Your task to perform on an android device: toggle improve location accuracy Image 0: 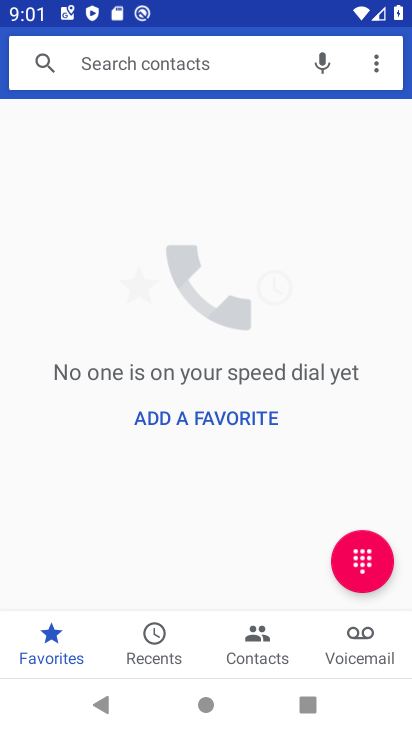
Step 0: press home button
Your task to perform on an android device: toggle improve location accuracy Image 1: 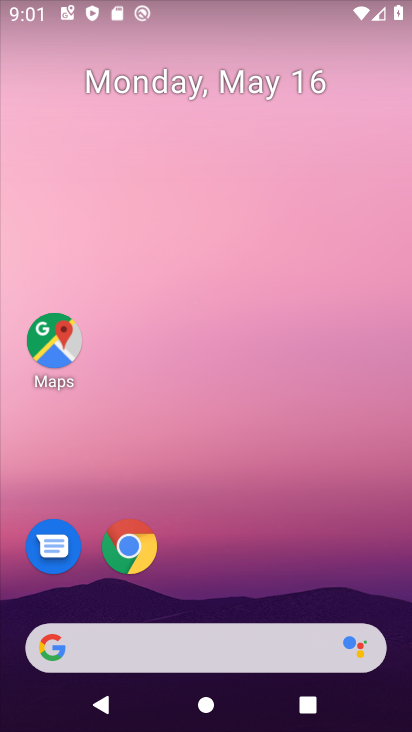
Step 1: drag from (223, 671) to (273, 238)
Your task to perform on an android device: toggle improve location accuracy Image 2: 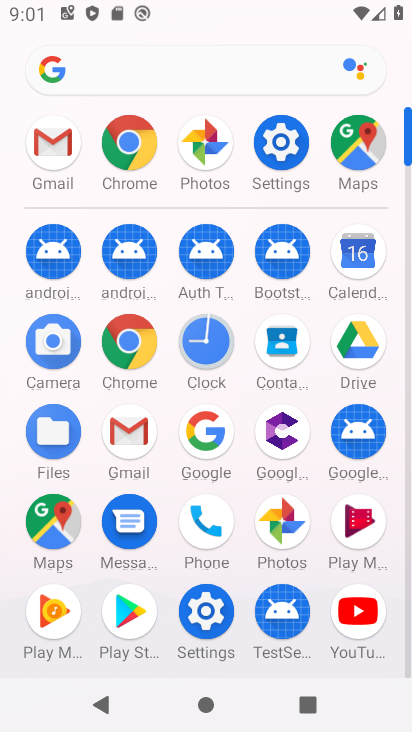
Step 2: click (203, 611)
Your task to perform on an android device: toggle improve location accuracy Image 3: 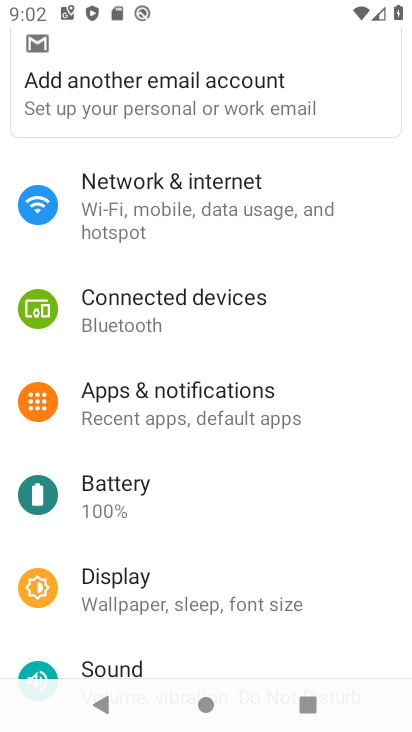
Step 3: drag from (272, 197) to (234, 480)
Your task to perform on an android device: toggle improve location accuracy Image 4: 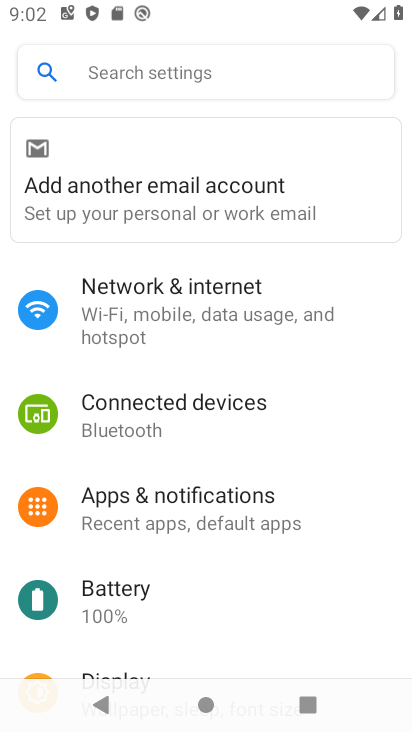
Step 4: click (169, 81)
Your task to perform on an android device: toggle improve location accuracy Image 5: 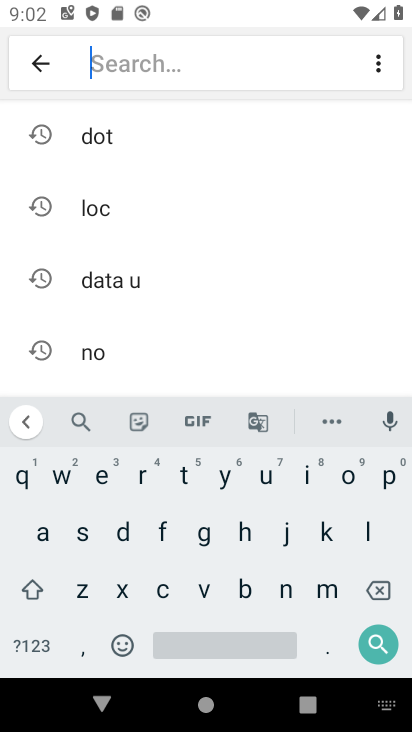
Step 5: click (119, 214)
Your task to perform on an android device: toggle improve location accuracy Image 6: 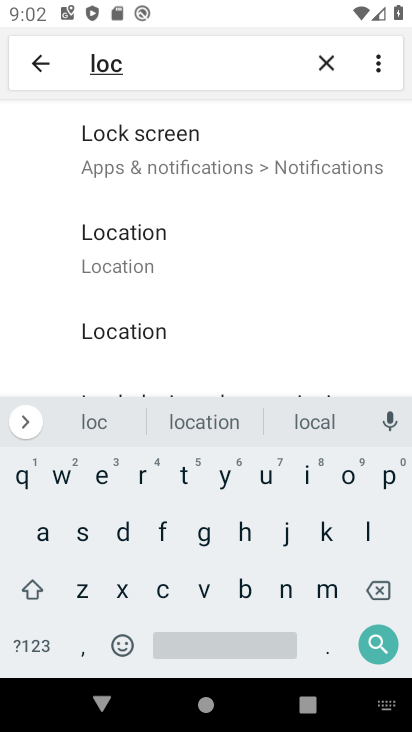
Step 6: click (138, 247)
Your task to perform on an android device: toggle improve location accuracy Image 7: 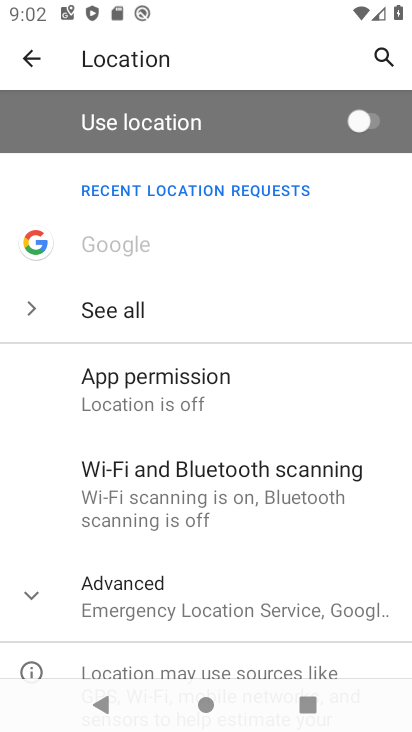
Step 7: drag from (128, 548) to (191, 277)
Your task to perform on an android device: toggle improve location accuracy Image 8: 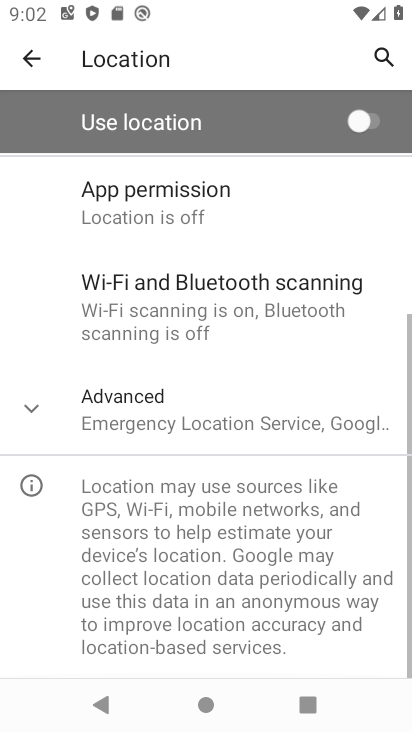
Step 8: click (145, 404)
Your task to perform on an android device: toggle improve location accuracy Image 9: 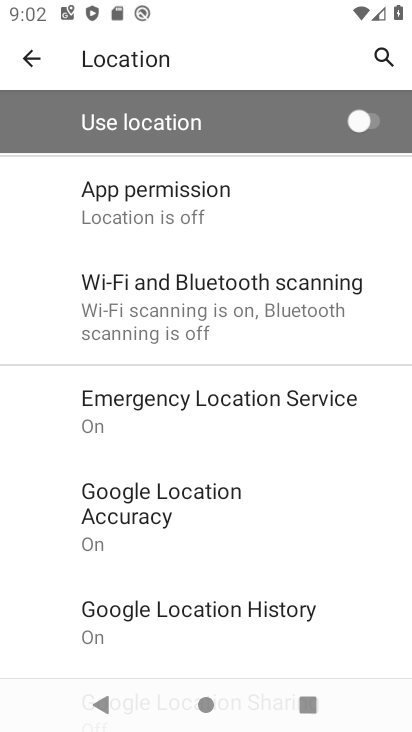
Step 9: click (193, 498)
Your task to perform on an android device: toggle improve location accuracy Image 10: 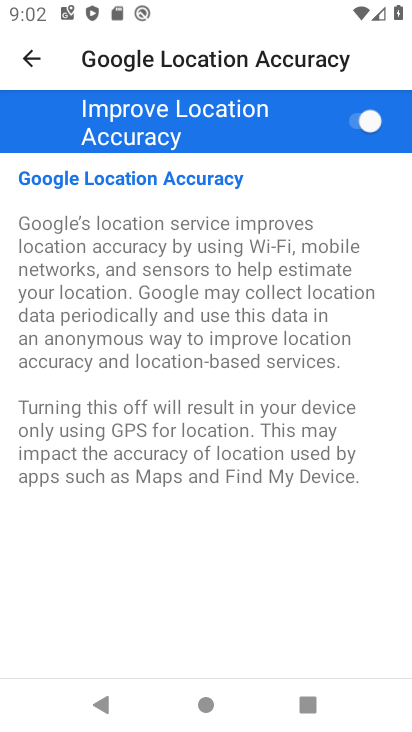
Step 10: task complete